Your task to perform on an android device: check out phone information Image 0: 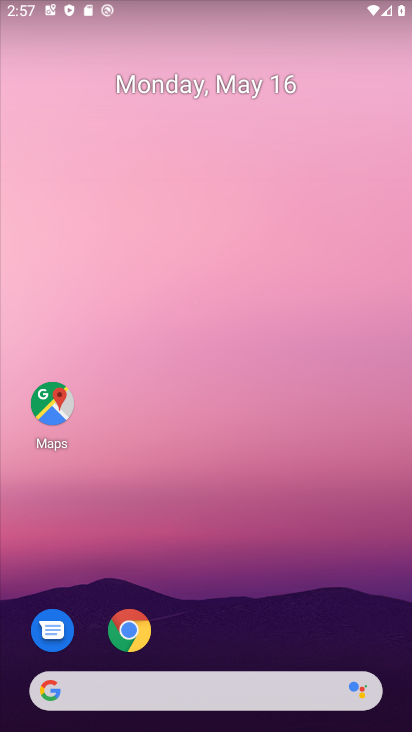
Step 0: drag from (209, 490) to (197, 25)
Your task to perform on an android device: check out phone information Image 1: 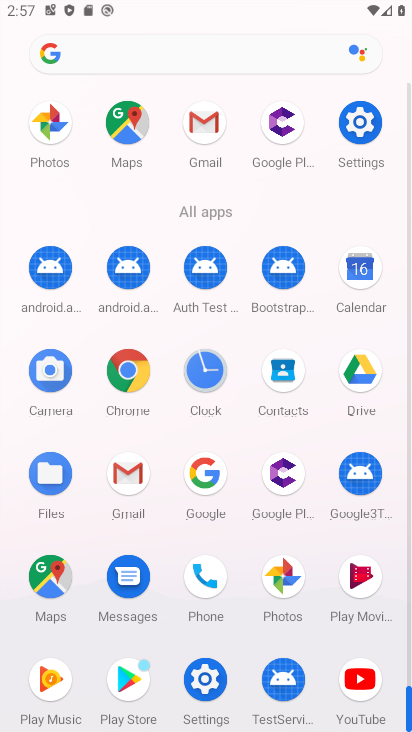
Step 1: drag from (6, 539) to (30, 202)
Your task to perform on an android device: check out phone information Image 2: 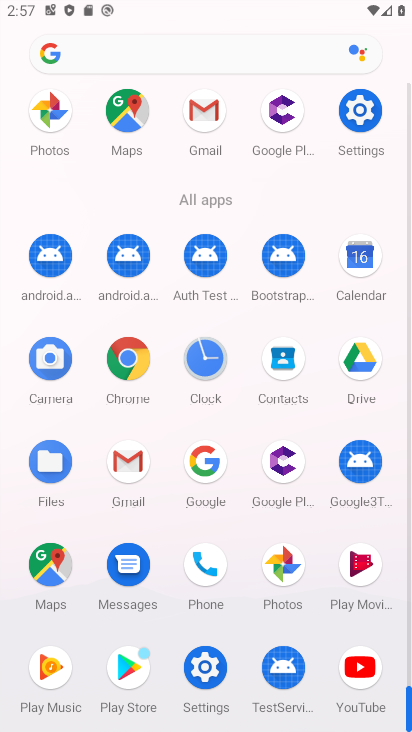
Step 2: drag from (13, 523) to (9, 182)
Your task to perform on an android device: check out phone information Image 3: 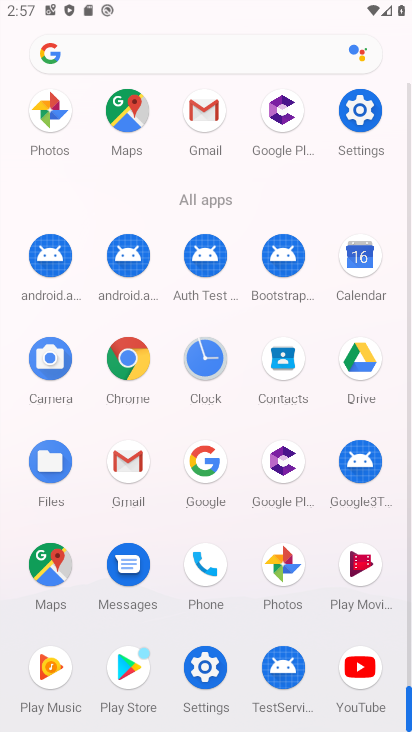
Step 3: click (200, 664)
Your task to perform on an android device: check out phone information Image 4: 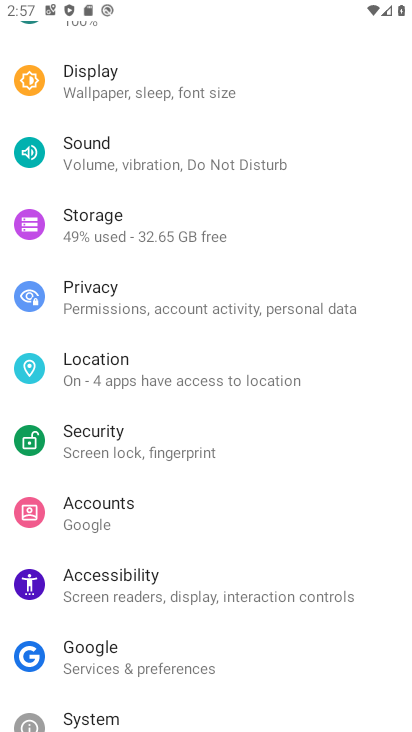
Step 4: drag from (236, 93) to (240, 525)
Your task to perform on an android device: check out phone information Image 5: 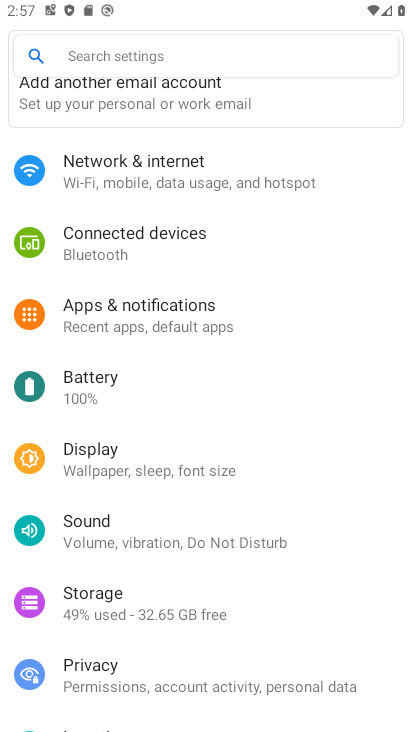
Step 5: drag from (233, 574) to (232, 118)
Your task to perform on an android device: check out phone information Image 6: 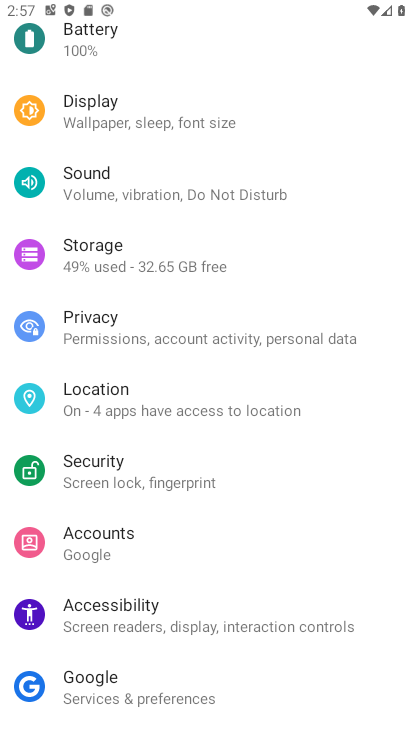
Step 6: drag from (249, 610) to (274, 132)
Your task to perform on an android device: check out phone information Image 7: 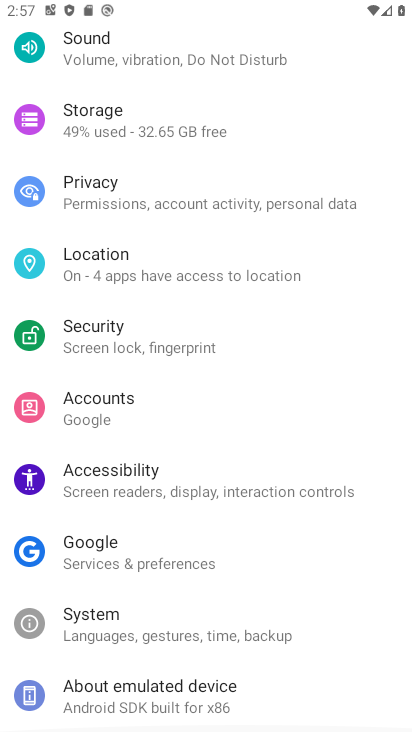
Step 7: click (217, 694)
Your task to perform on an android device: check out phone information Image 8: 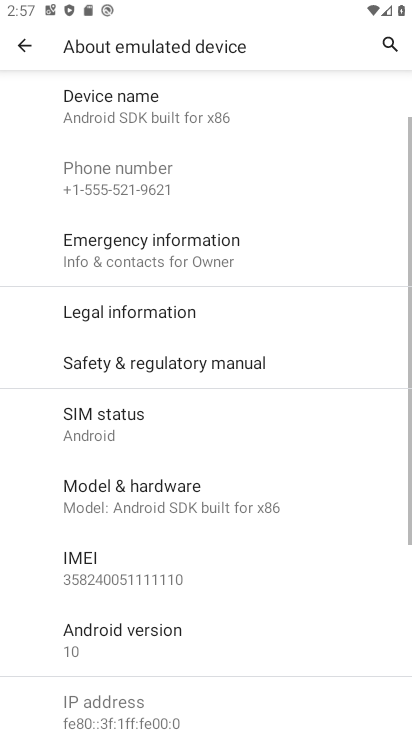
Step 8: drag from (273, 52) to (269, 486)
Your task to perform on an android device: check out phone information Image 9: 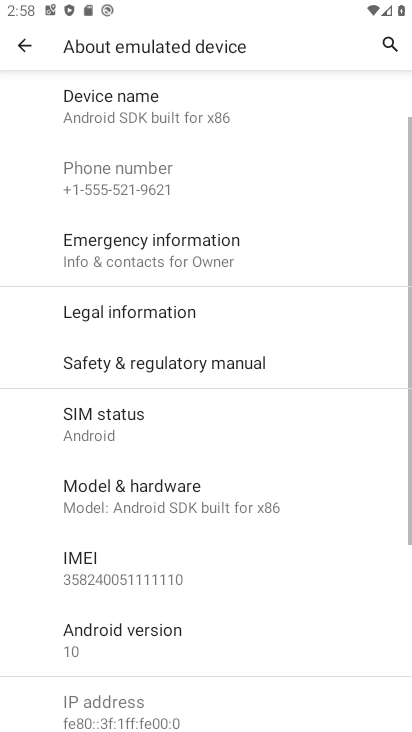
Step 9: drag from (275, 120) to (295, 572)
Your task to perform on an android device: check out phone information Image 10: 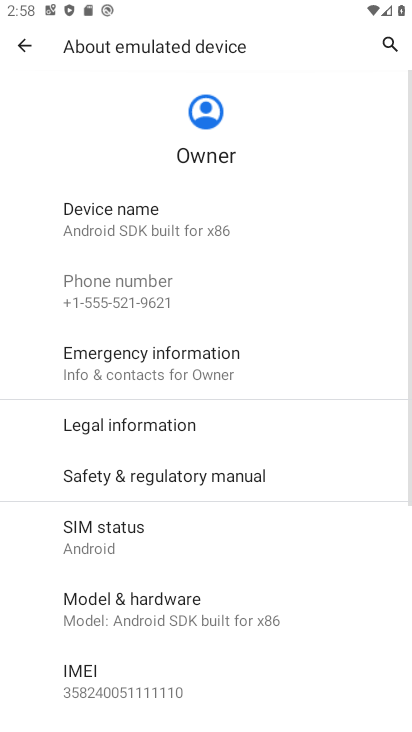
Step 10: drag from (288, 632) to (294, 184)
Your task to perform on an android device: check out phone information Image 11: 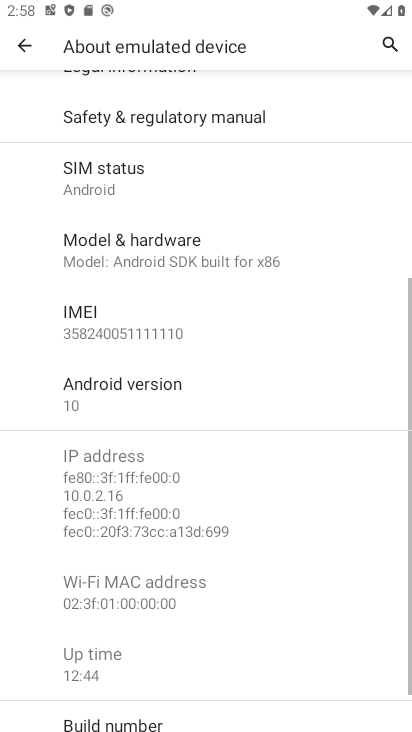
Step 11: drag from (284, 563) to (309, 177)
Your task to perform on an android device: check out phone information Image 12: 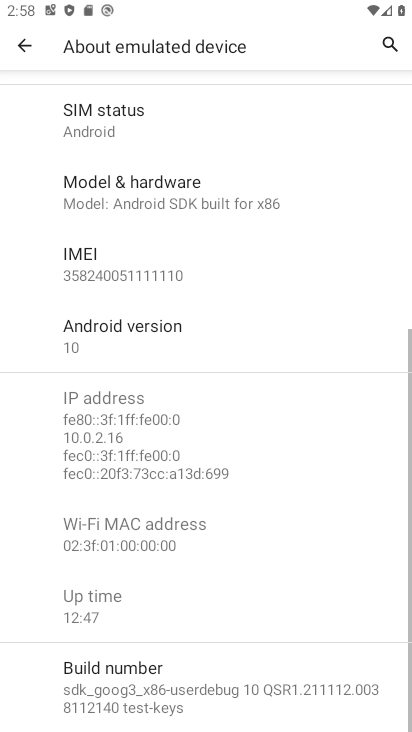
Step 12: drag from (285, 243) to (296, 635)
Your task to perform on an android device: check out phone information Image 13: 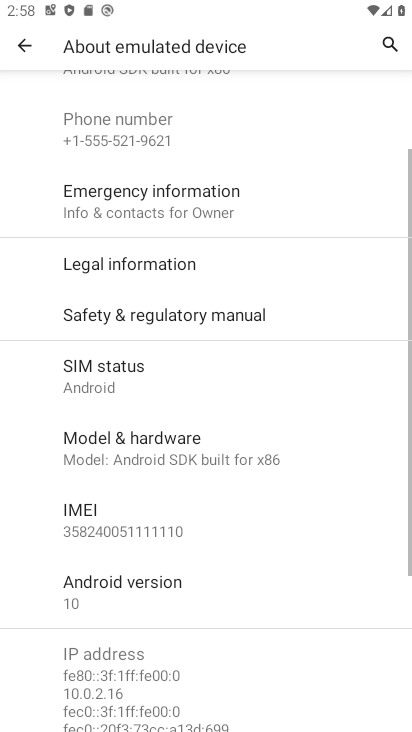
Step 13: drag from (298, 184) to (298, 618)
Your task to perform on an android device: check out phone information Image 14: 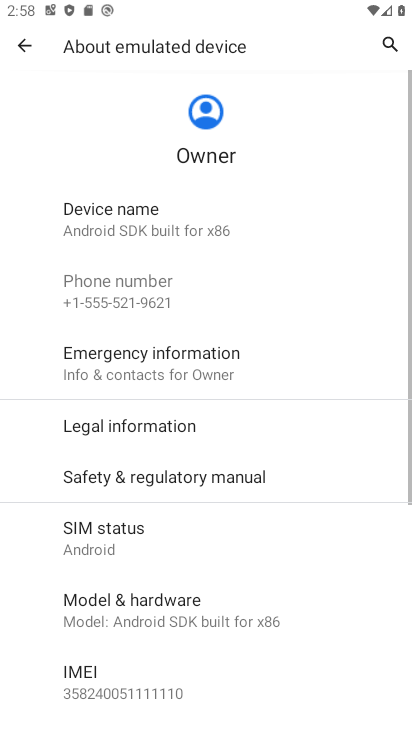
Step 14: drag from (297, 608) to (276, 269)
Your task to perform on an android device: check out phone information Image 15: 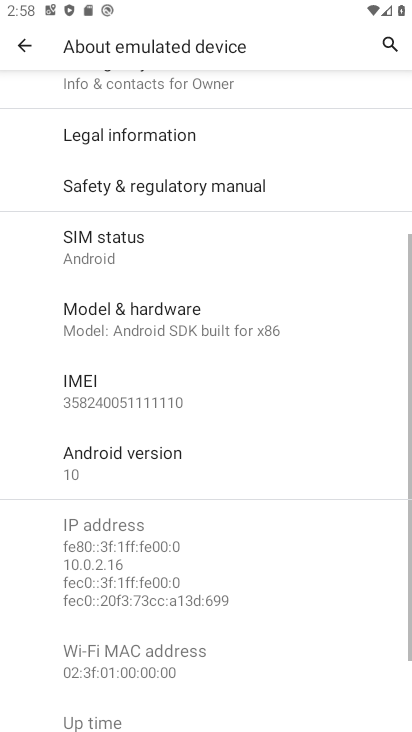
Step 15: drag from (367, 205) to (356, 506)
Your task to perform on an android device: check out phone information Image 16: 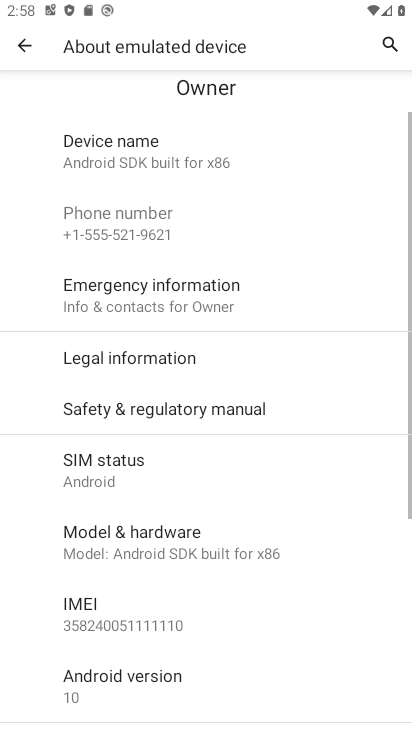
Step 16: click (19, 45)
Your task to perform on an android device: check out phone information Image 17: 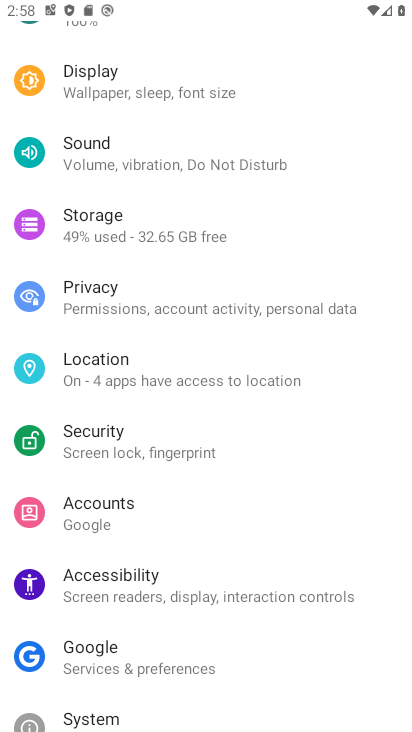
Step 17: drag from (297, 600) to (352, 165)
Your task to perform on an android device: check out phone information Image 18: 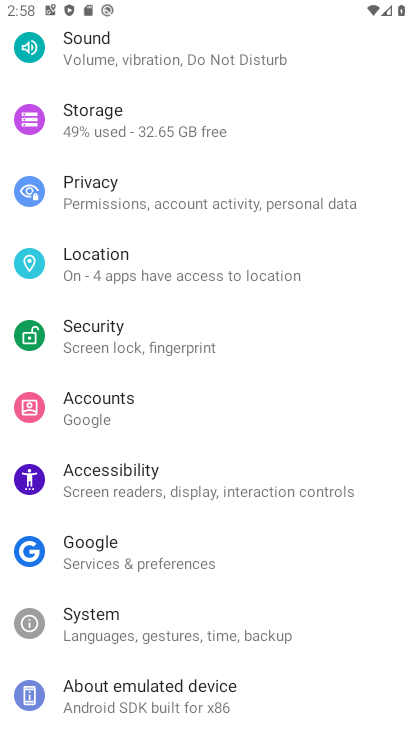
Step 18: click (181, 688)
Your task to perform on an android device: check out phone information Image 19: 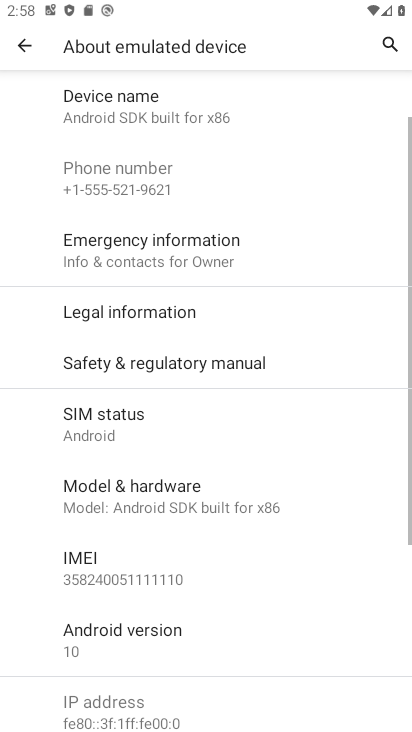
Step 19: task complete